Your task to perform on an android device: delete browsing data in the chrome app Image 0: 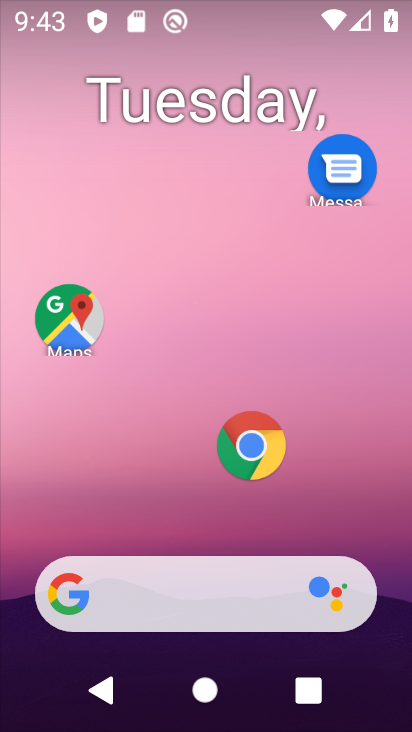
Step 0: click (264, 443)
Your task to perform on an android device: delete browsing data in the chrome app Image 1: 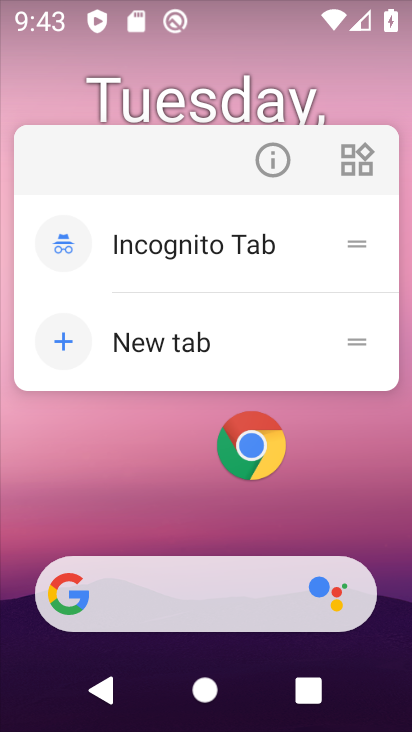
Step 1: click (243, 440)
Your task to perform on an android device: delete browsing data in the chrome app Image 2: 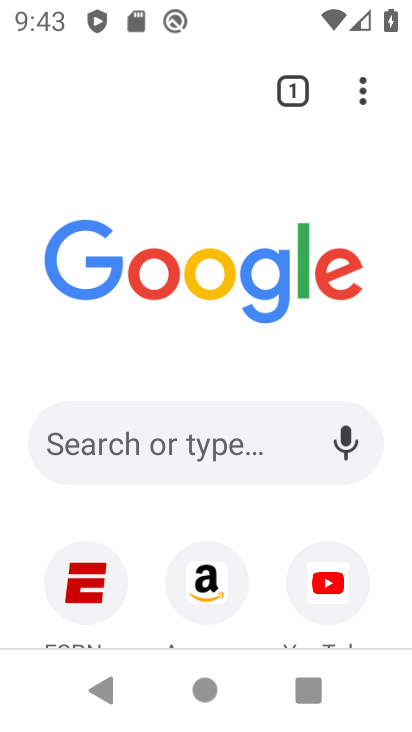
Step 2: click (361, 92)
Your task to perform on an android device: delete browsing data in the chrome app Image 3: 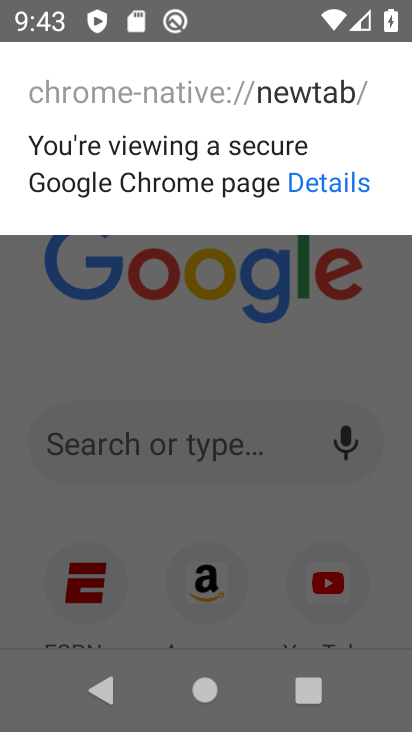
Step 3: click (371, 306)
Your task to perform on an android device: delete browsing data in the chrome app Image 4: 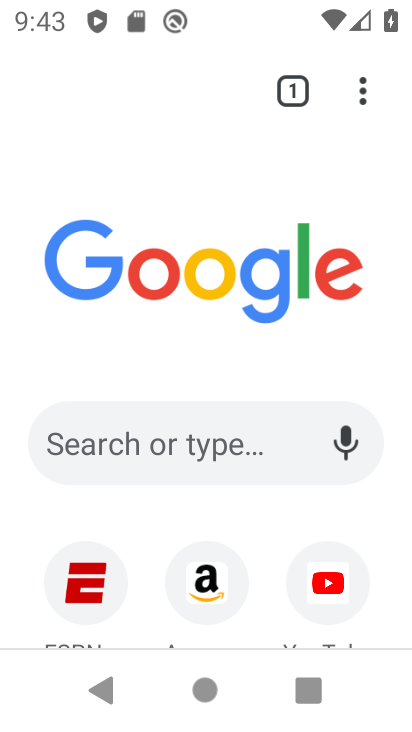
Step 4: click (363, 97)
Your task to perform on an android device: delete browsing data in the chrome app Image 5: 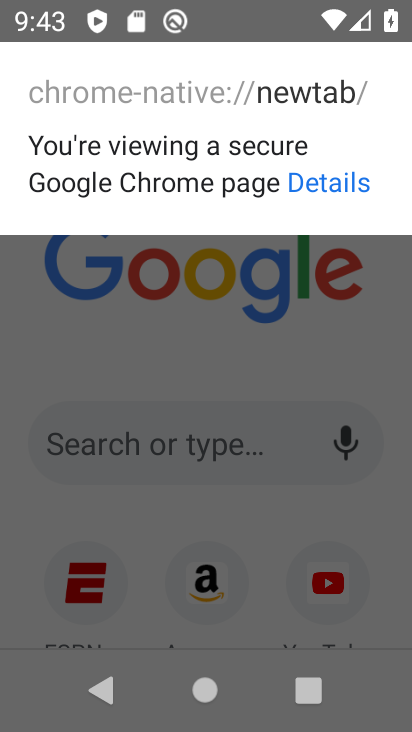
Step 5: click (343, 320)
Your task to perform on an android device: delete browsing data in the chrome app Image 6: 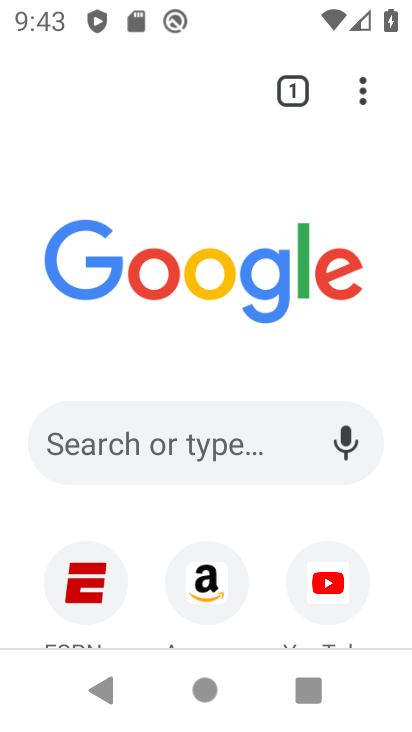
Step 6: click (362, 97)
Your task to perform on an android device: delete browsing data in the chrome app Image 7: 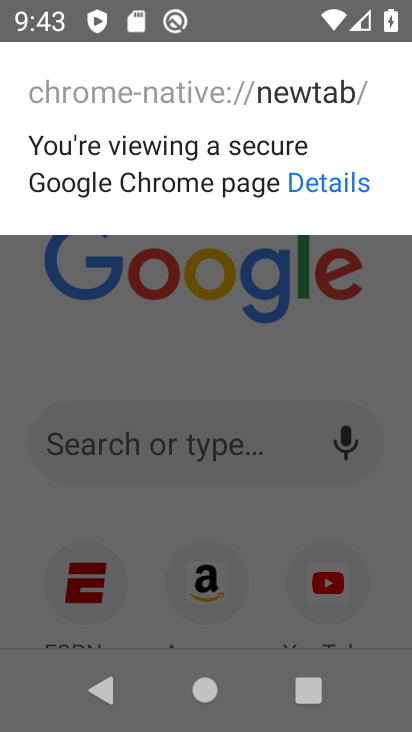
Step 7: click (318, 309)
Your task to perform on an android device: delete browsing data in the chrome app Image 8: 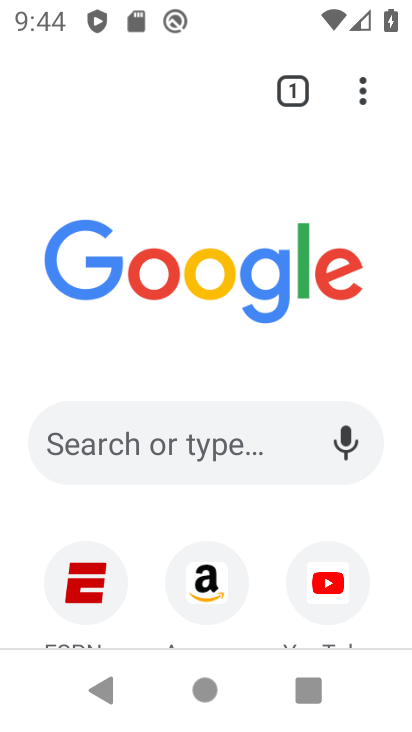
Step 8: click (365, 92)
Your task to perform on an android device: delete browsing data in the chrome app Image 9: 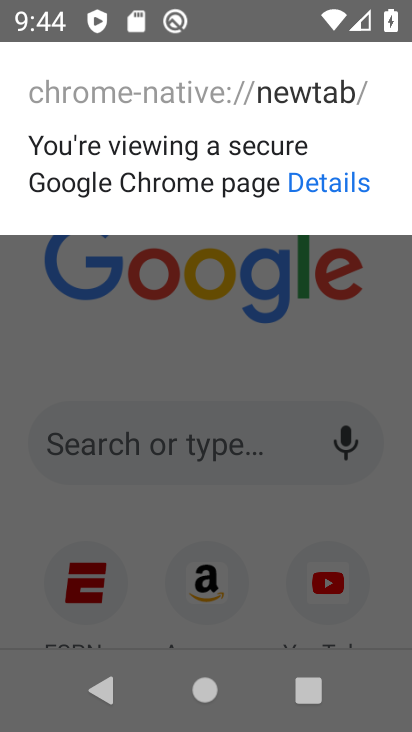
Step 9: click (325, 315)
Your task to perform on an android device: delete browsing data in the chrome app Image 10: 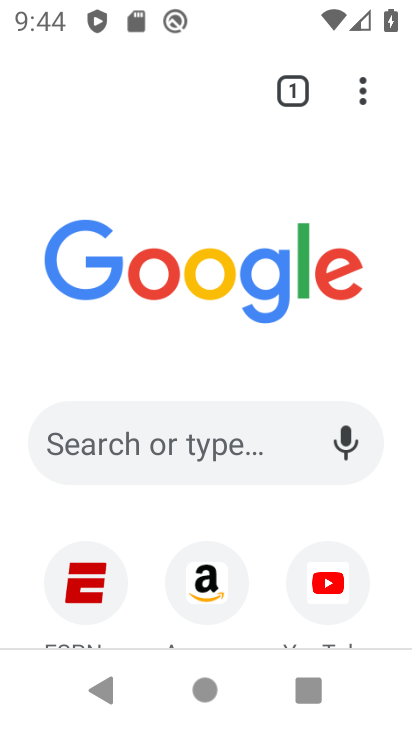
Step 10: click (364, 93)
Your task to perform on an android device: delete browsing data in the chrome app Image 11: 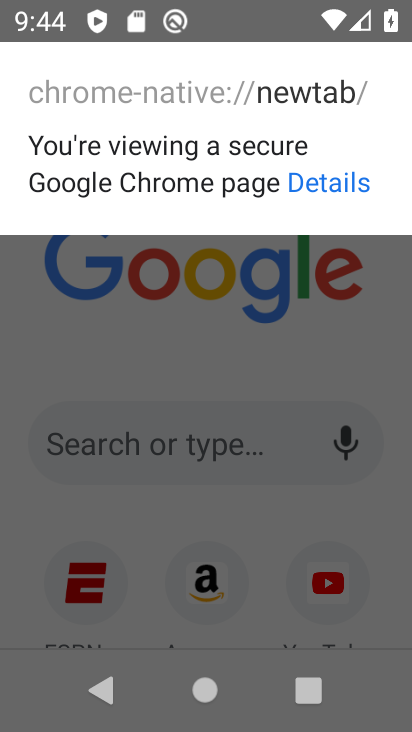
Step 11: click (338, 392)
Your task to perform on an android device: delete browsing data in the chrome app Image 12: 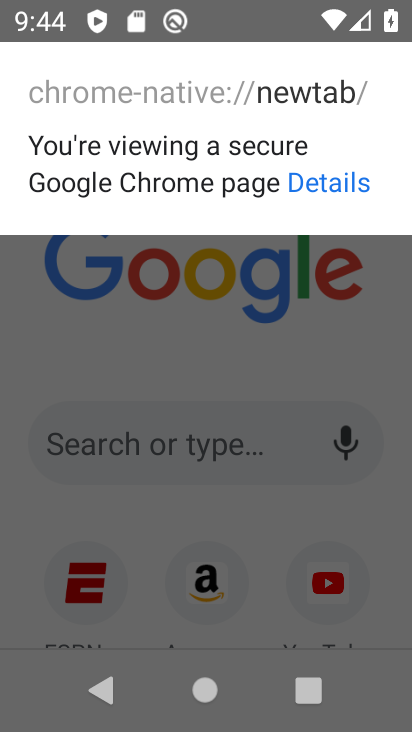
Step 12: click (346, 343)
Your task to perform on an android device: delete browsing data in the chrome app Image 13: 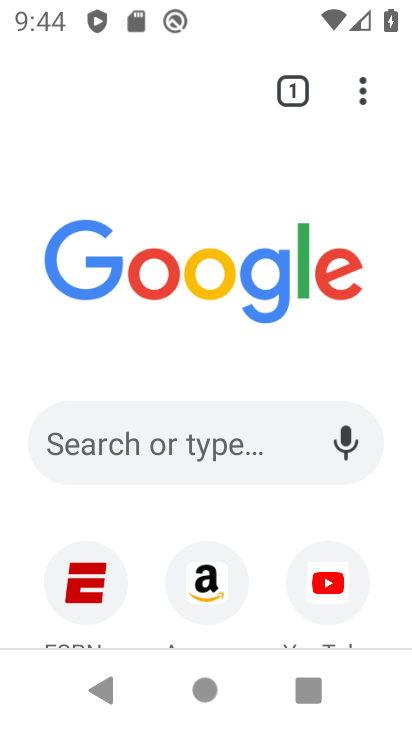
Step 13: click (346, 343)
Your task to perform on an android device: delete browsing data in the chrome app Image 14: 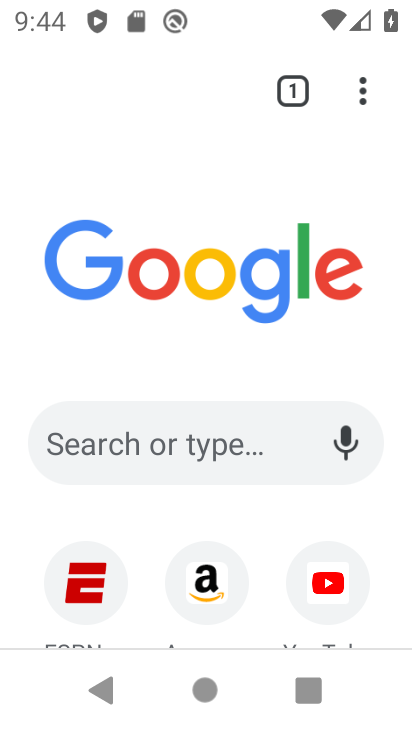
Step 14: click (368, 87)
Your task to perform on an android device: delete browsing data in the chrome app Image 15: 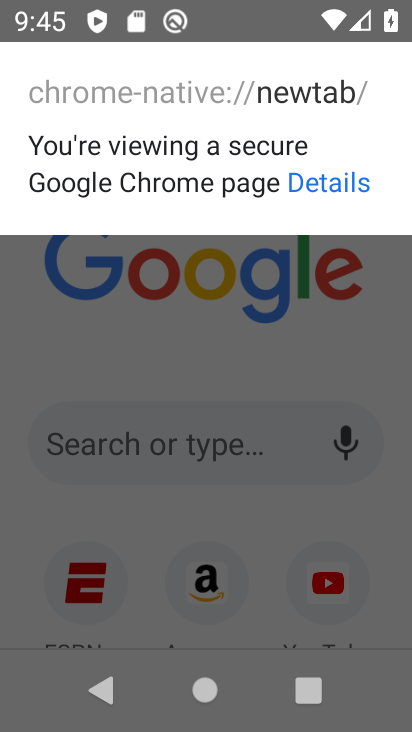
Step 15: click (398, 375)
Your task to perform on an android device: delete browsing data in the chrome app Image 16: 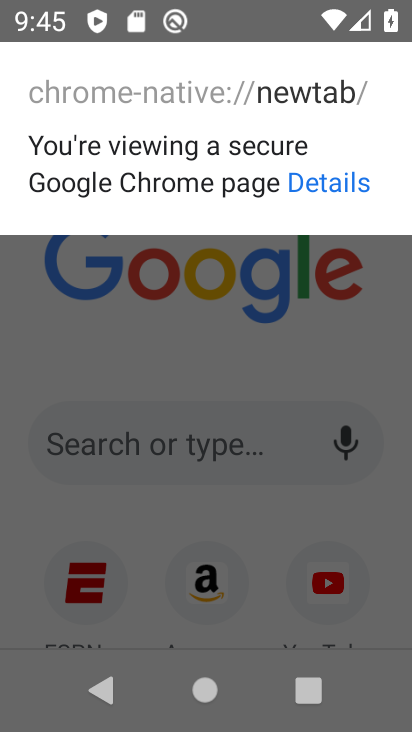
Step 16: click (399, 364)
Your task to perform on an android device: delete browsing data in the chrome app Image 17: 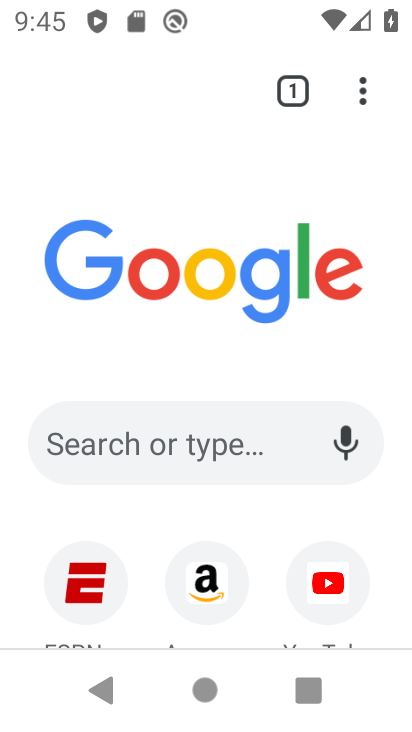
Step 17: click (363, 83)
Your task to perform on an android device: delete browsing data in the chrome app Image 18: 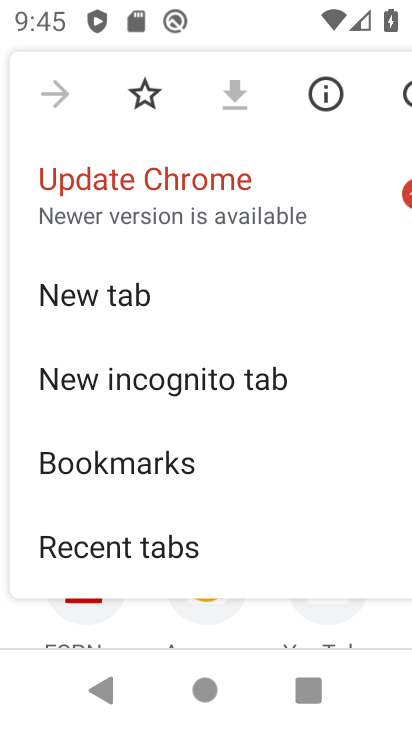
Step 18: drag from (155, 519) to (215, 229)
Your task to perform on an android device: delete browsing data in the chrome app Image 19: 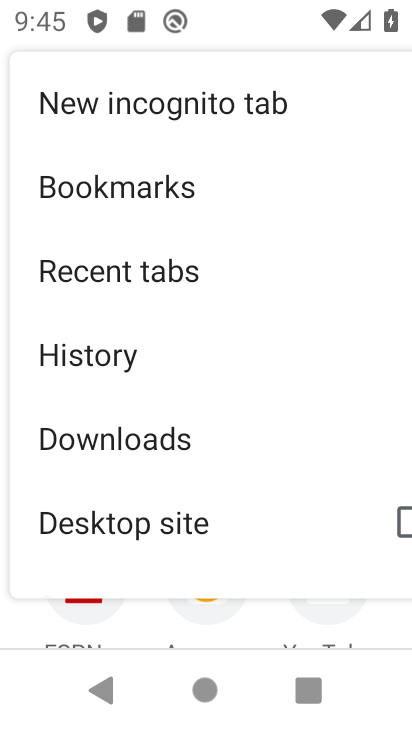
Step 19: drag from (114, 550) to (221, 244)
Your task to perform on an android device: delete browsing data in the chrome app Image 20: 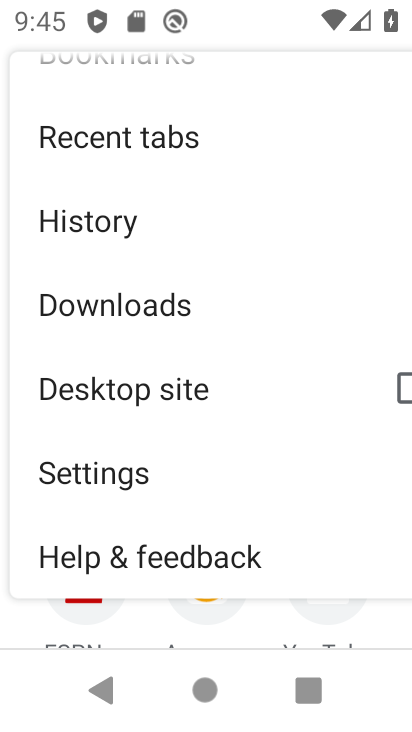
Step 20: click (133, 473)
Your task to perform on an android device: delete browsing data in the chrome app Image 21: 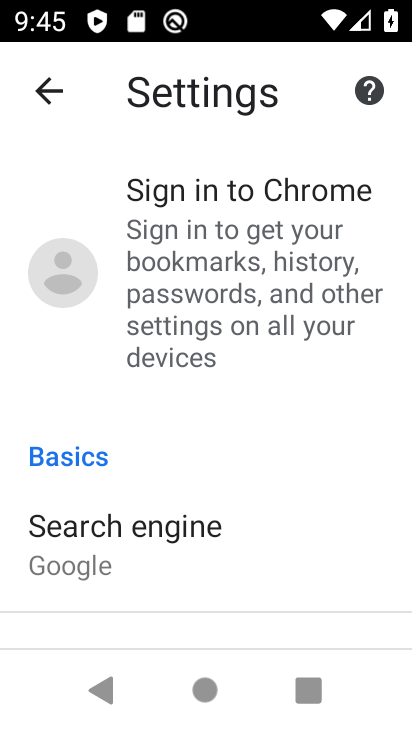
Step 21: drag from (95, 586) to (206, 232)
Your task to perform on an android device: delete browsing data in the chrome app Image 22: 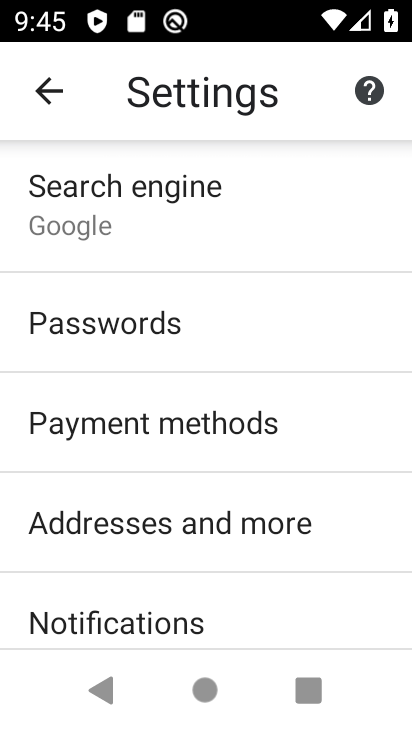
Step 22: drag from (169, 528) to (285, 212)
Your task to perform on an android device: delete browsing data in the chrome app Image 23: 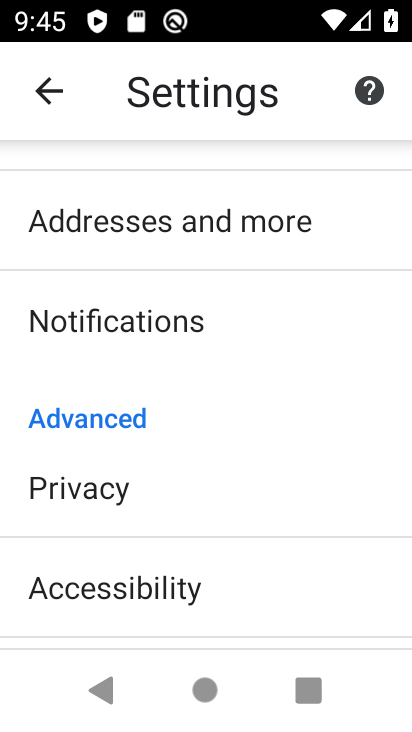
Step 23: click (118, 485)
Your task to perform on an android device: delete browsing data in the chrome app Image 24: 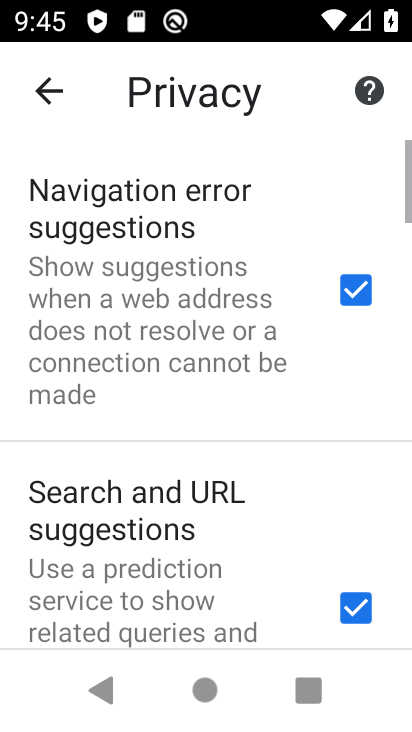
Step 24: drag from (101, 525) to (242, 202)
Your task to perform on an android device: delete browsing data in the chrome app Image 25: 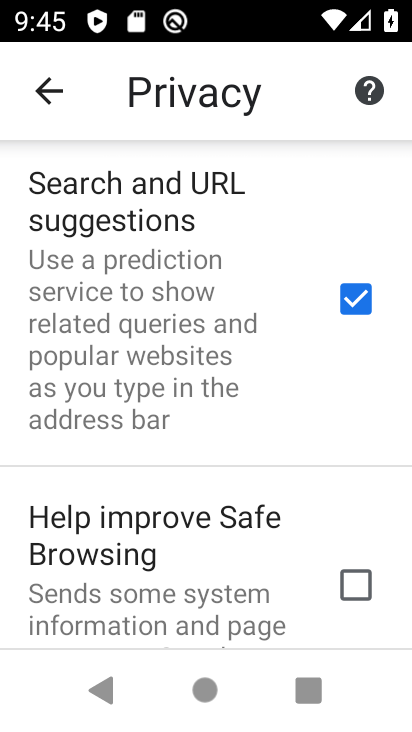
Step 25: drag from (187, 530) to (326, 199)
Your task to perform on an android device: delete browsing data in the chrome app Image 26: 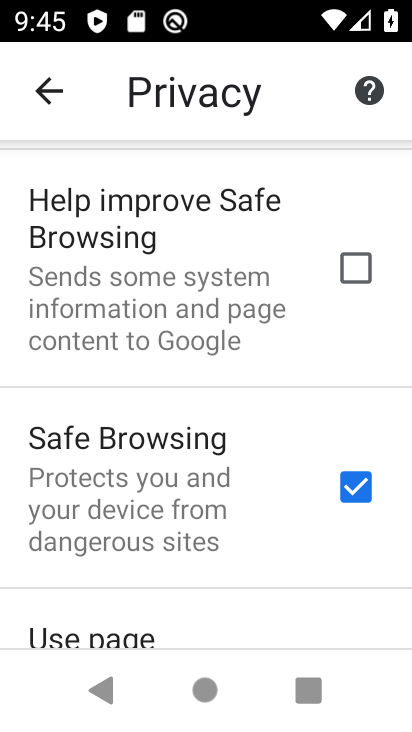
Step 26: drag from (157, 565) to (239, 352)
Your task to perform on an android device: delete browsing data in the chrome app Image 27: 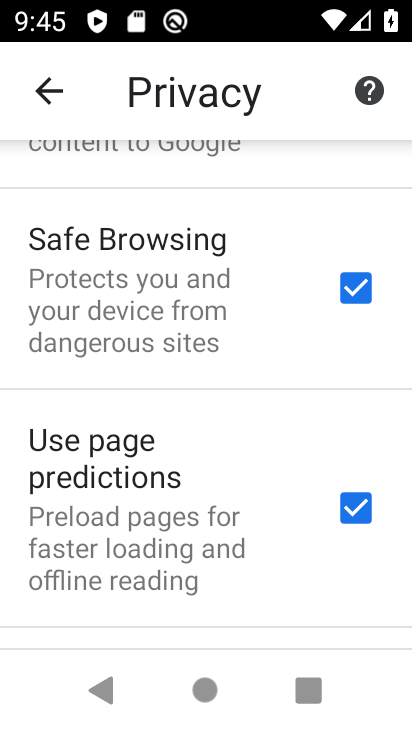
Step 27: click (113, 690)
Your task to perform on an android device: delete browsing data in the chrome app Image 28: 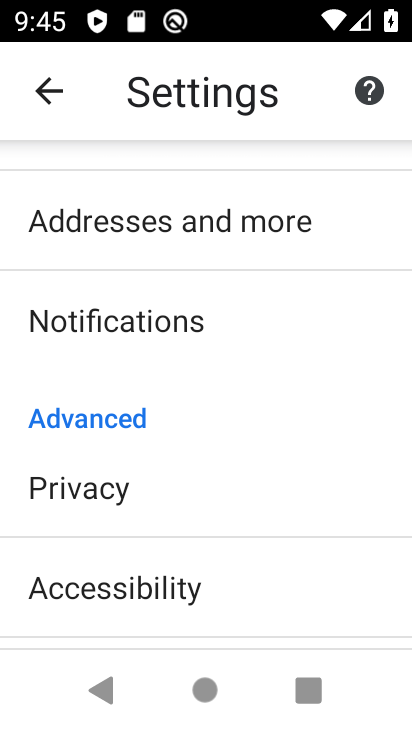
Step 28: drag from (169, 607) to (234, 339)
Your task to perform on an android device: delete browsing data in the chrome app Image 29: 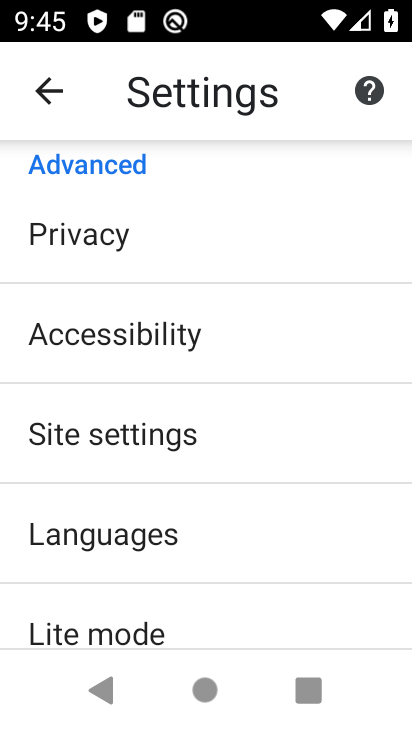
Step 29: click (187, 453)
Your task to perform on an android device: delete browsing data in the chrome app Image 30: 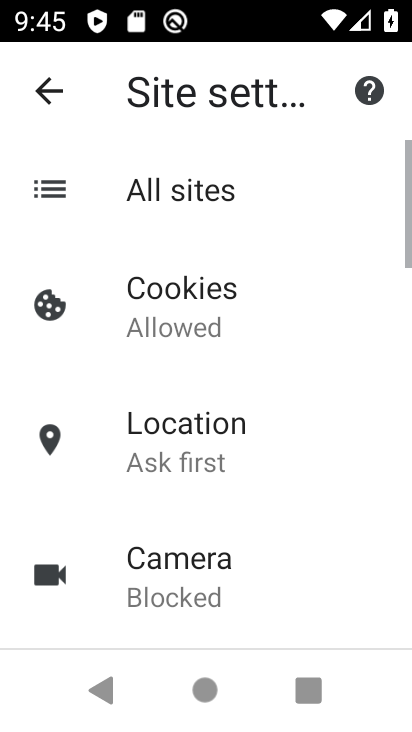
Step 30: drag from (137, 539) to (183, 392)
Your task to perform on an android device: delete browsing data in the chrome app Image 31: 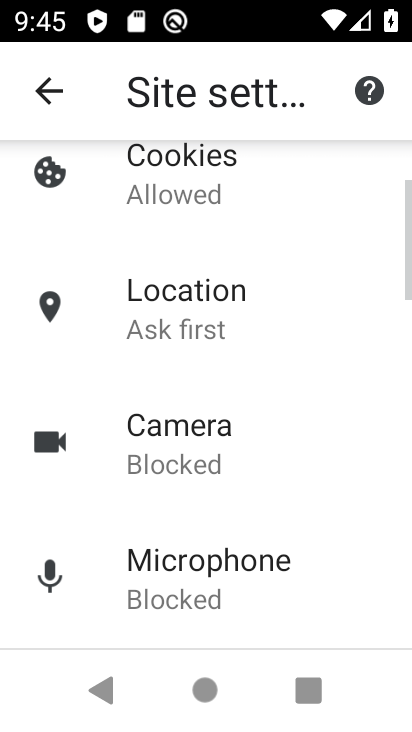
Step 31: click (74, 674)
Your task to perform on an android device: delete browsing data in the chrome app Image 32: 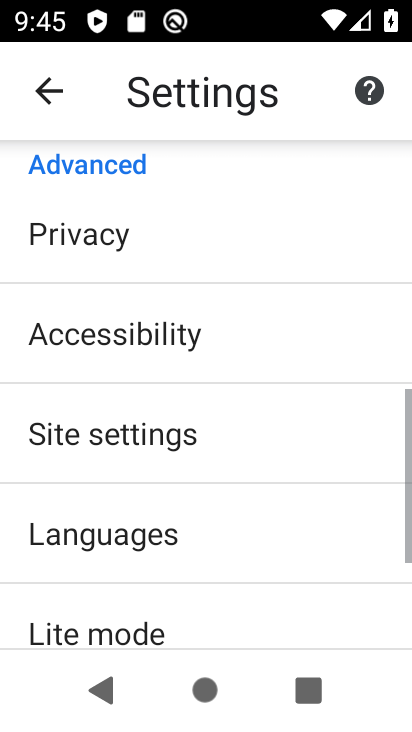
Step 32: drag from (214, 298) to (255, 612)
Your task to perform on an android device: delete browsing data in the chrome app Image 33: 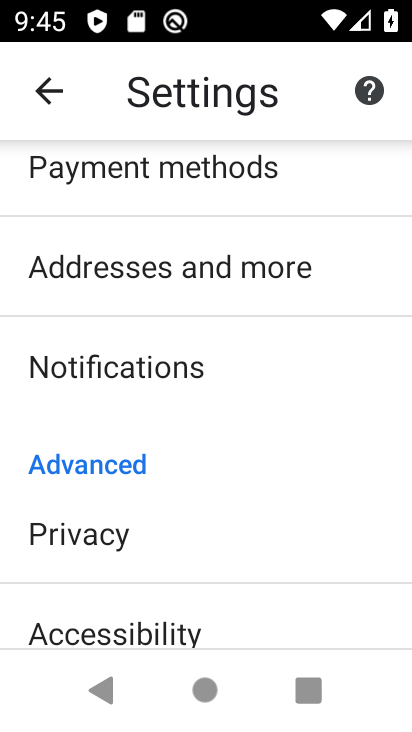
Step 33: drag from (185, 625) to (235, 471)
Your task to perform on an android device: delete browsing data in the chrome app Image 34: 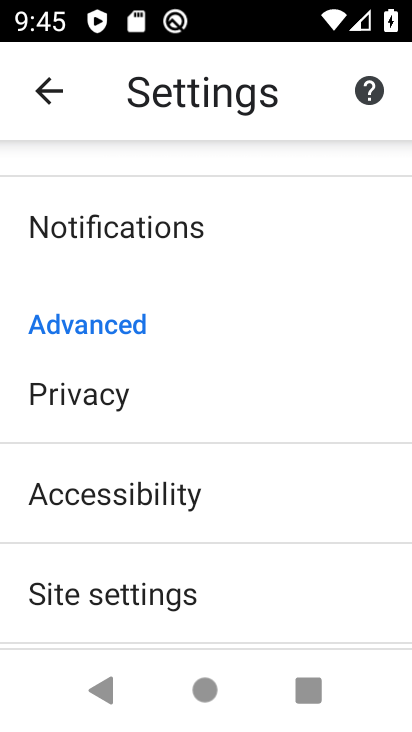
Step 34: click (125, 405)
Your task to perform on an android device: delete browsing data in the chrome app Image 35: 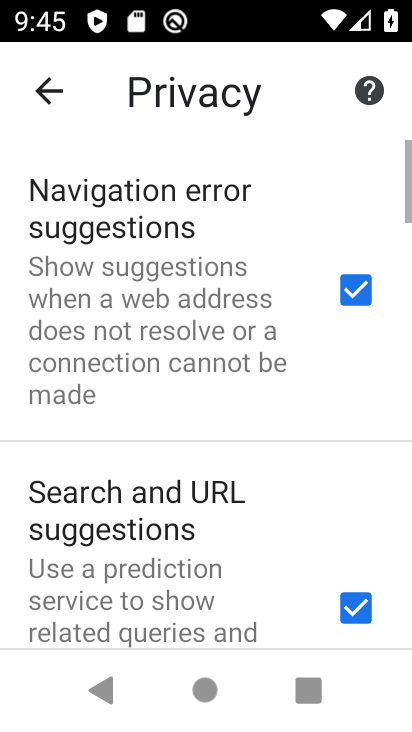
Step 35: task complete